Your task to perform on an android device: turn off javascript in the chrome app Image 0: 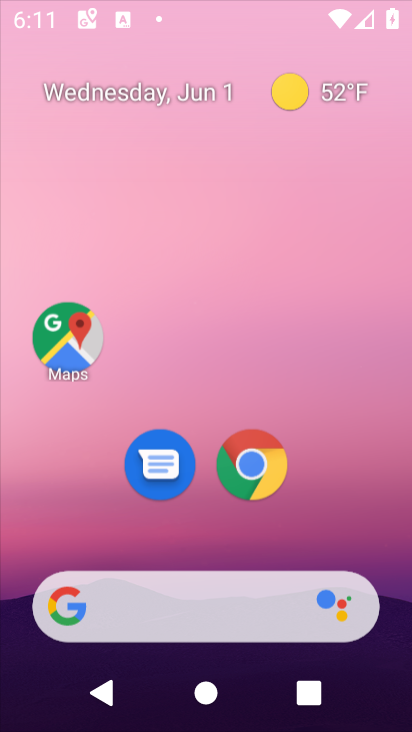
Step 0: click (67, 348)
Your task to perform on an android device: turn off javascript in the chrome app Image 1: 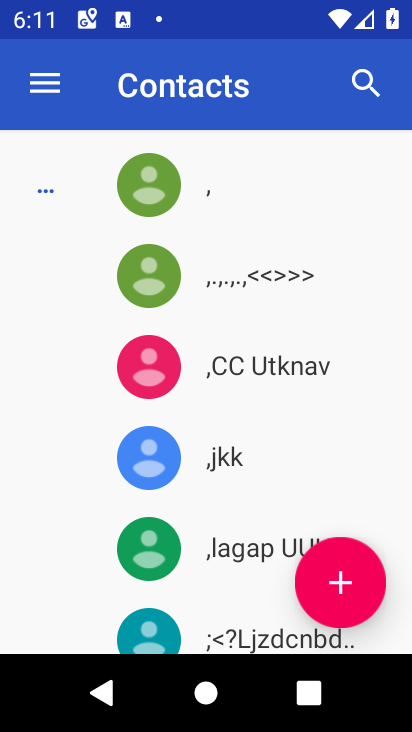
Step 1: press home button
Your task to perform on an android device: turn off javascript in the chrome app Image 2: 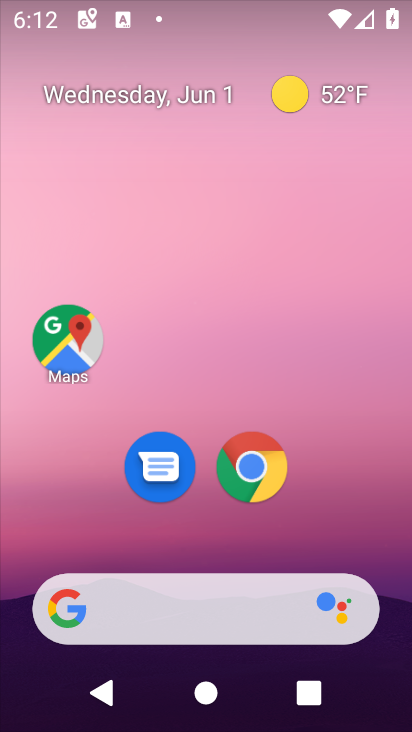
Step 2: drag from (343, 530) to (226, 9)
Your task to perform on an android device: turn off javascript in the chrome app Image 3: 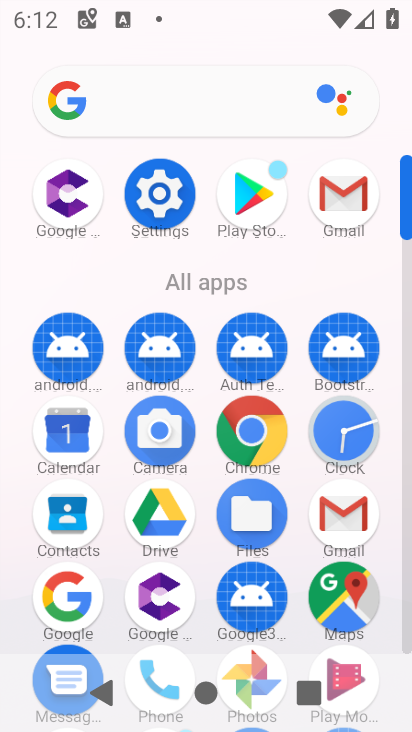
Step 3: click (257, 413)
Your task to perform on an android device: turn off javascript in the chrome app Image 4: 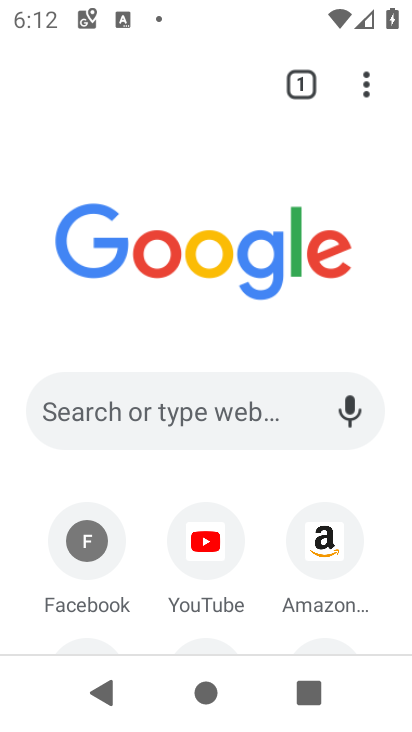
Step 4: click (360, 86)
Your task to perform on an android device: turn off javascript in the chrome app Image 5: 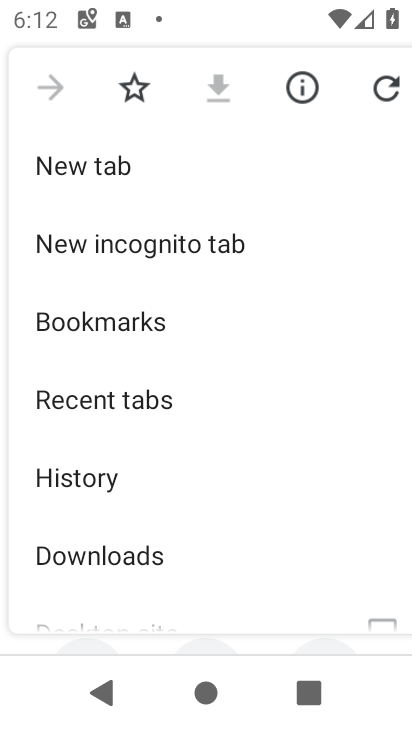
Step 5: drag from (296, 475) to (223, 3)
Your task to perform on an android device: turn off javascript in the chrome app Image 6: 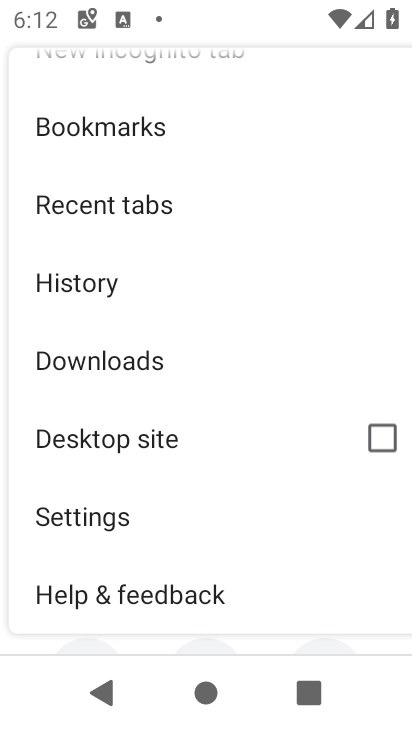
Step 6: click (162, 524)
Your task to perform on an android device: turn off javascript in the chrome app Image 7: 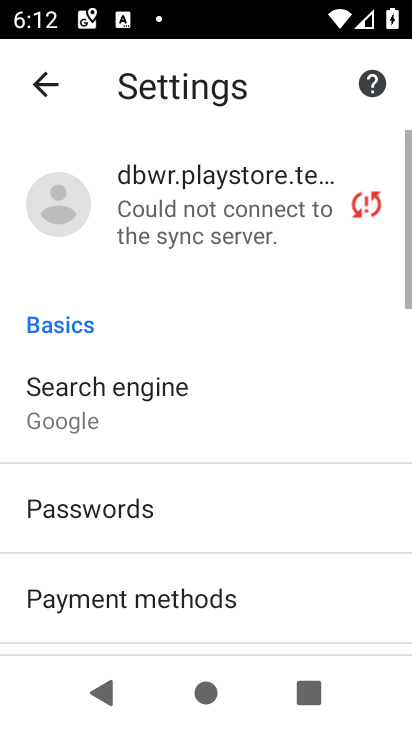
Step 7: drag from (184, 511) to (159, 17)
Your task to perform on an android device: turn off javascript in the chrome app Image 8: 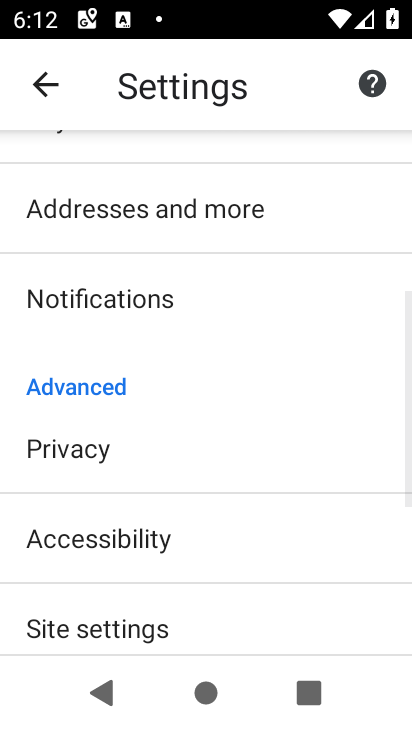
Step 8: drag from (180, 539) to (182, 108)
Your task to perform on an android device: turn off javascript in the chrome app Image 9: 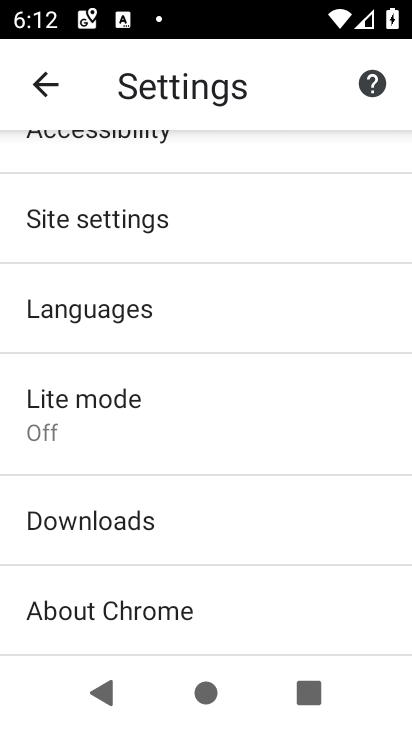
Step 9: click (157, 224)
Your task to perform on an android device: turn off javascript in the chrome app Image 10: 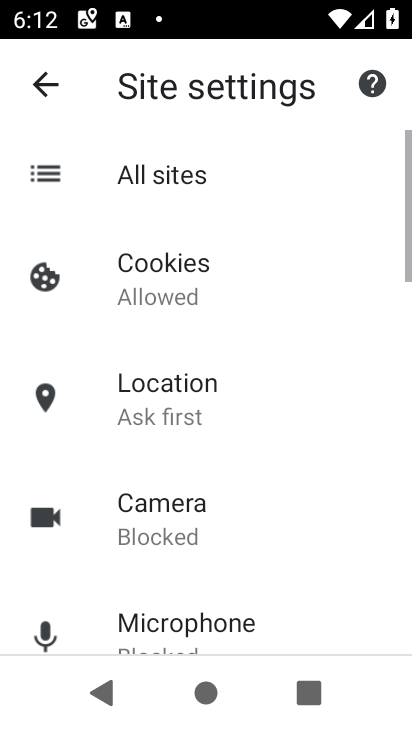
Step 10: drag from (178, 513) to (165, 119)
Your task to perform on an android device: turn off javascript in the chrome app Image 11: 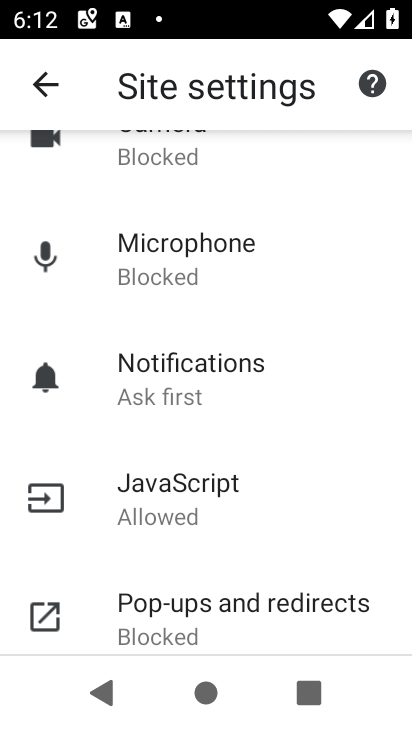
Step 11: click (186, 507)
Your task to perform on an android device: turn off javascript in the chrome app Image 12: 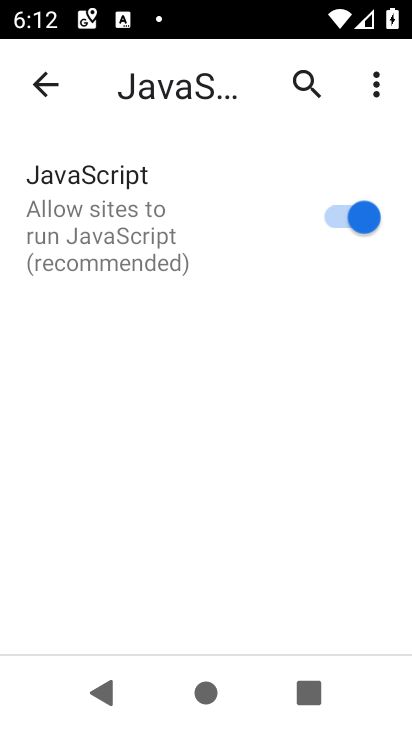
Step 12: click (373, 216)
Your task to perform on an android device: turn off javascript in the chrome app Image 13: 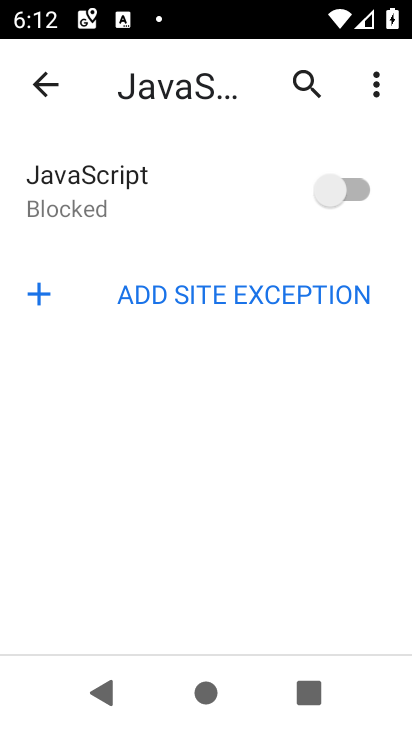
Step 13: task complete